Your task to perform on an android device: turn on data saver in the chrome app Image 0: 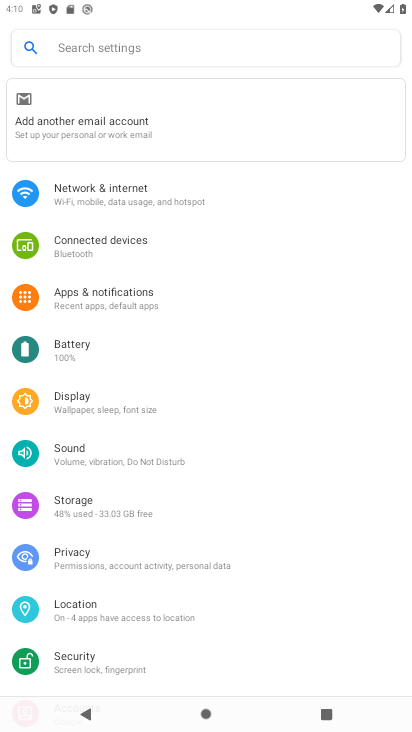
Step 0: press home button
Your task to perform on an android device: turn on data saver in the chrome app Image 1: 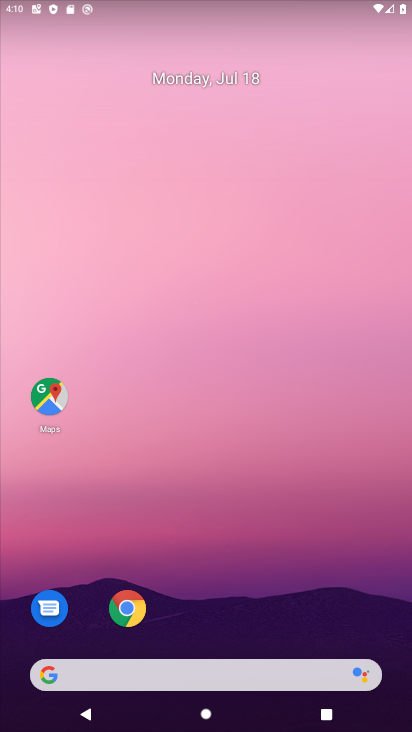
Step 1: click (259, 648)
Your task to perform on an android device: turn on data saver in the chrome app Image 2: 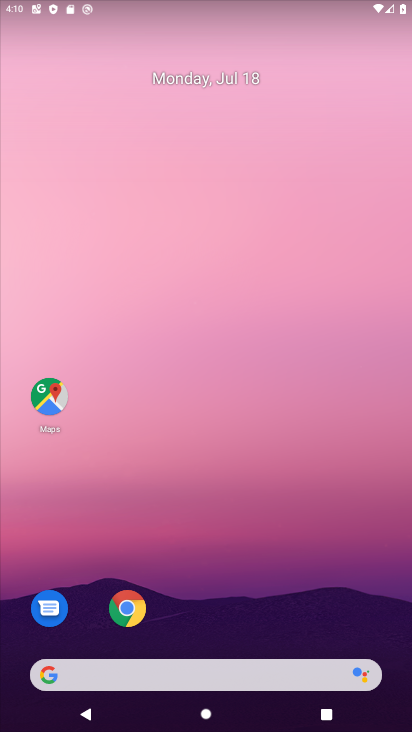
Step 2: click (126, 597)
Your task to perform on an android device: turn on data saver in the chrome app Image 3: 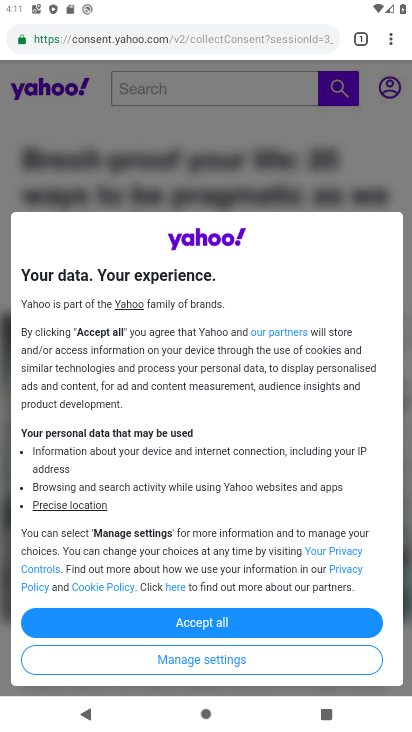
Step 3: click (385, 30)
Your task to perform on an android device: turn on data saver in the chrome app Image 4: 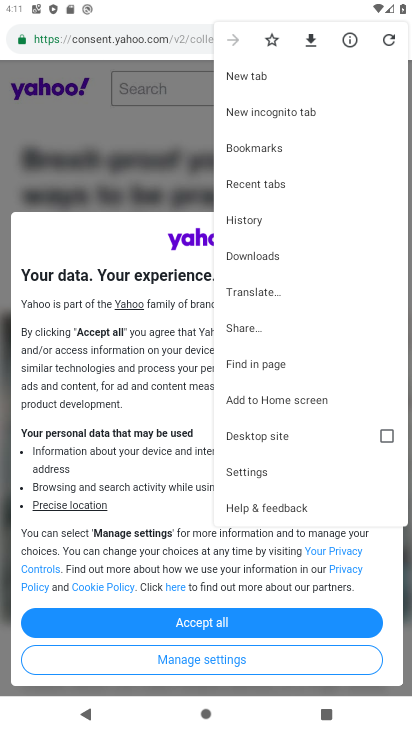
Step 4: click (272, 463)
Your task to perform on an android device: turn on data saver in the chrome app Image 5: 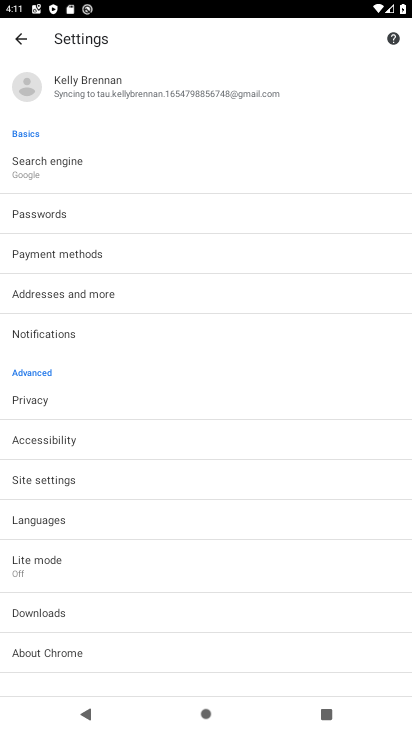
Step 5: click (40, 566)
Your task to perform on an android device: turn on data saver in the chrome app Image 6: 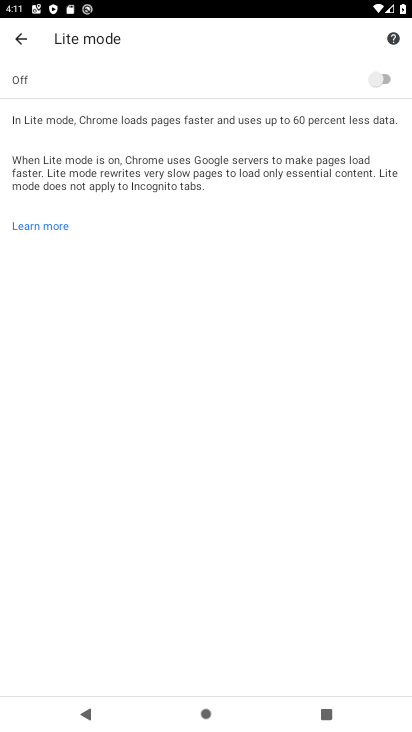
Step 6: click (390, 71)
Your task to perform on an android device: turn on data saver in the chrome app Image 7: 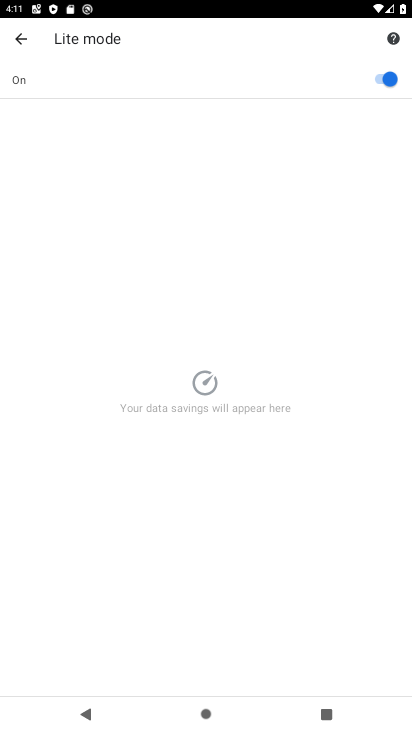
Step 7: click (390, 71)
Your task to perform on an android device: turn on data saver in the chrome app Image 8: 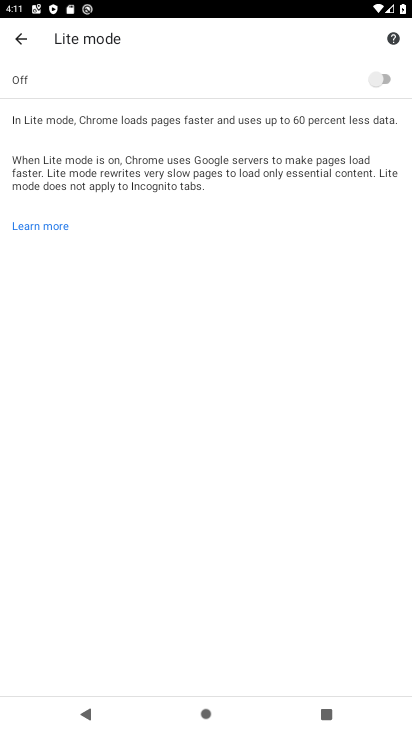
Step 8: click (384, 62)
Your task to perform on an android device: turn on data saver in the chrome app Image 9: 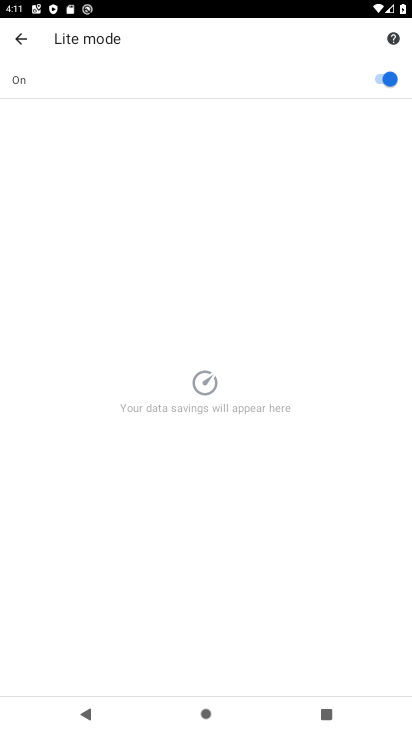
Step 9: click (388, 65)
Your task to perform on an android device: turn on data saver in the chrome app Image 10: 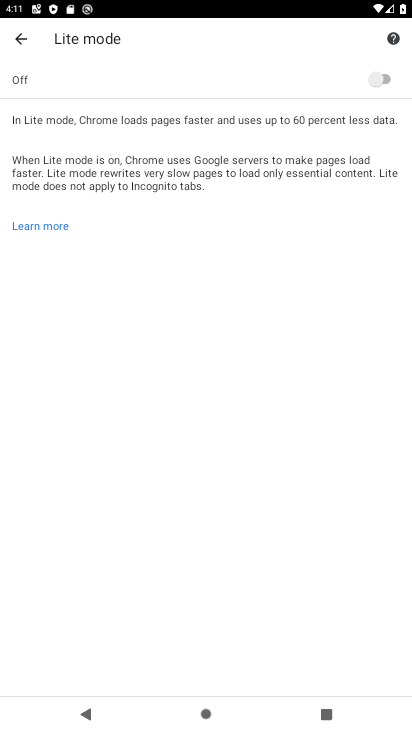
Step 10: click (379, 76)
Your task to perform on an android device: turn on data saver in the chrome app Image 11: 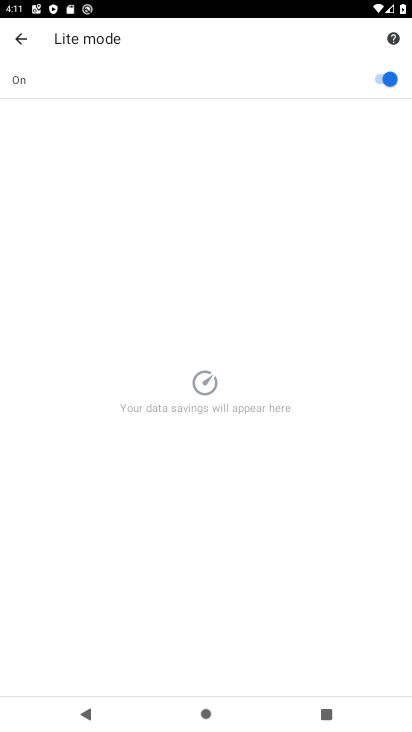
Step 11: task complete